Your task to perform on an android device: Open calendar and show me the second week of next month Image 0: 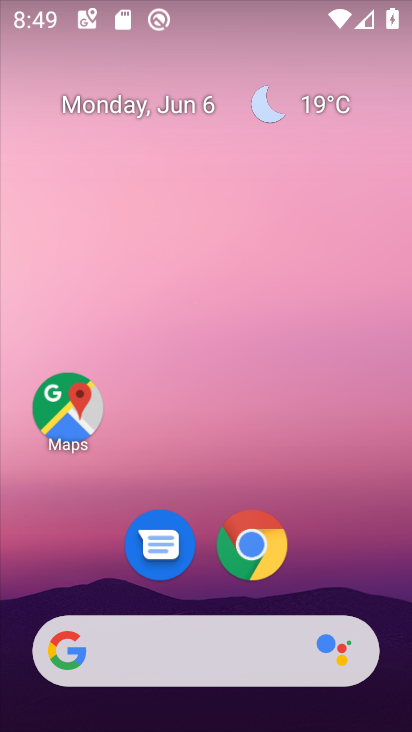
Step 0: drag from (203, 573) to (244, 192)
Your task to perform on an android device: Open calendar and show me the second week of next month Image 1: 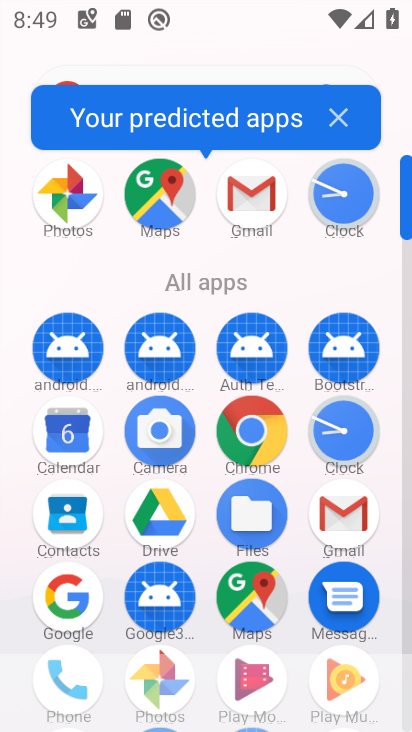
Step 1: click (62, 442)
Your task to perform on an android device: Open calendar and show me the second week of next month Image 2: 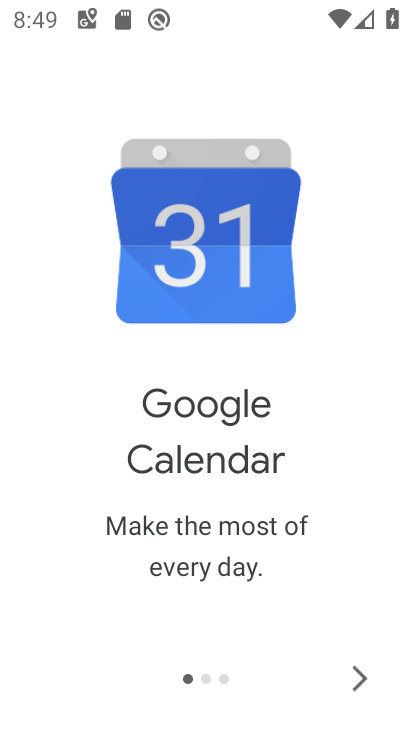
Step 2: click (348, 698)
Your task to perform on an android device: Open calendar and show me the second week of next month Image 3: 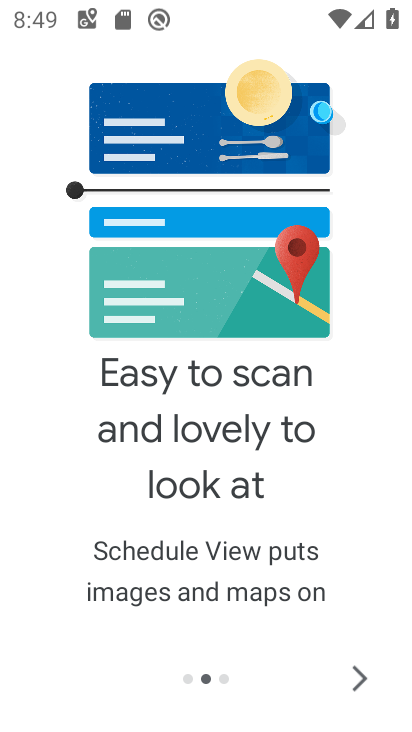
Step 3: click (355, 672)
Your task to perform on an android device: Open calendar and show me the second week of next month Image 4: 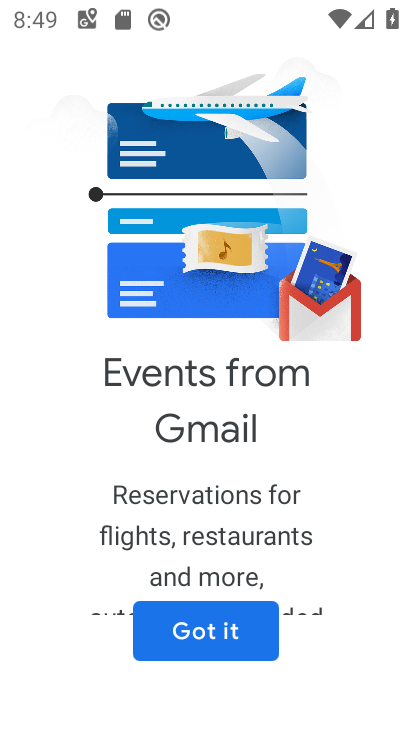
Step 4: click (173, 627)
Your task to perform on an android device: Open calendar and show me the second week of next month Image 5: 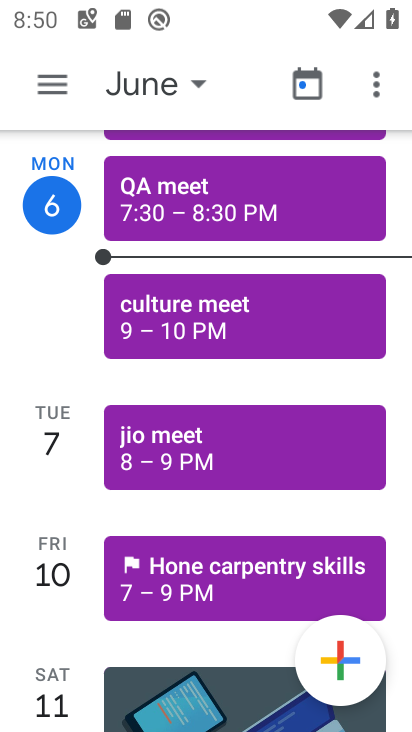
Step 5: click (52, 93)
Your task to perform on an android device: Open calendar and show me the second week of next month Image 6: 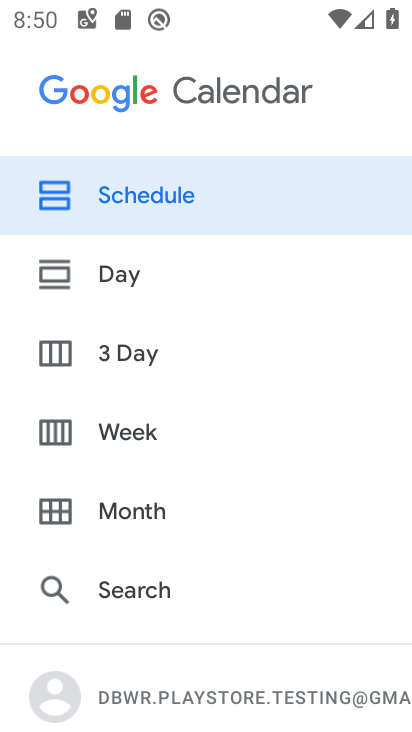
Step 6: click (135, 445)
Your task to perform on an android device: Open calendar and show me the second week of next month Image 7: 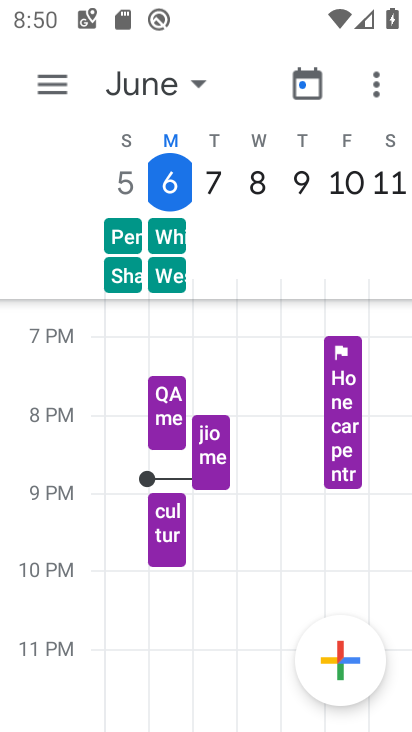
Step 7: click (178, 77)
Your task to perform on an android device: Open calendar and show me the second week of next month Image 8: 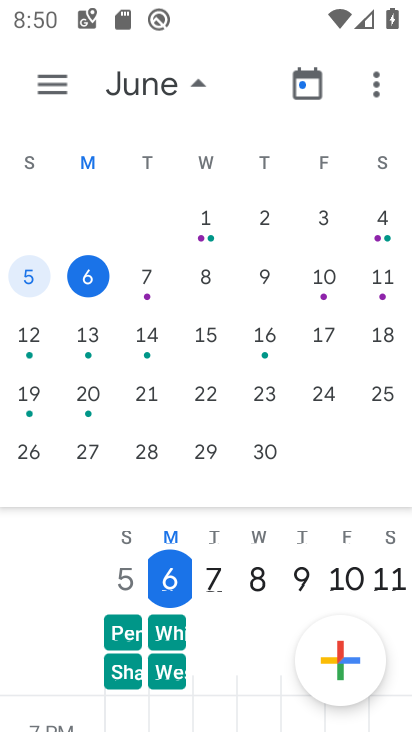
Step 8: drag from (350, 353) to (7, 348)
Your task to perform on an android device: Open calendar and show me the second week of next month Image 9: 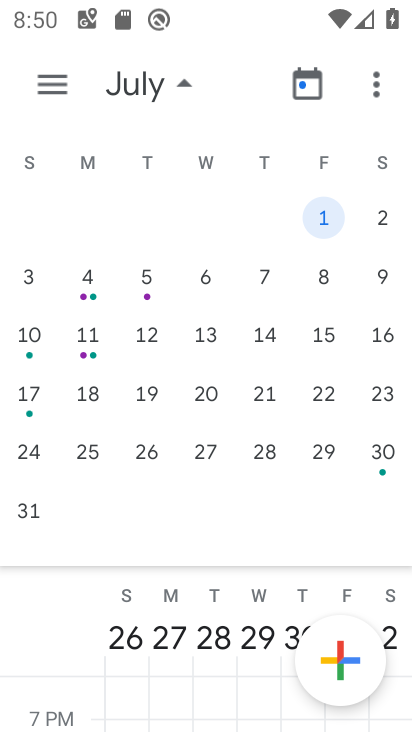
Step 9: click (85, 341)
Your task to perform on an android device: Open calendar and show me the second week of next month Image 10: 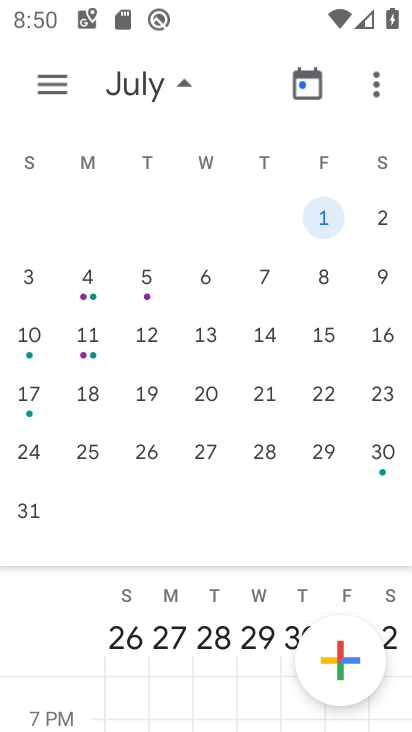
Step 10: click (85, 341)
Your task to perform on an android device: Open calendar and show me the second week of next month Image 11: 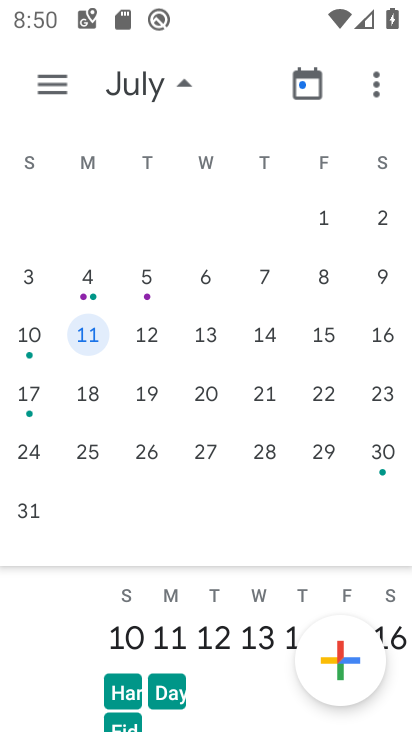
Step 11: click (64, 75)
Your task to perform on an android device: Open calendar and show me the second week of next month Image 12: 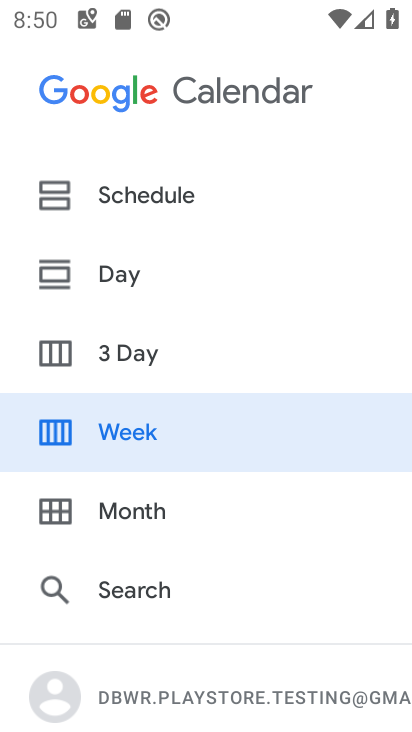
Step 12: click (138, 423)
Your task to perform on an android device: Open calendar and show me the second week of next month Image 13: 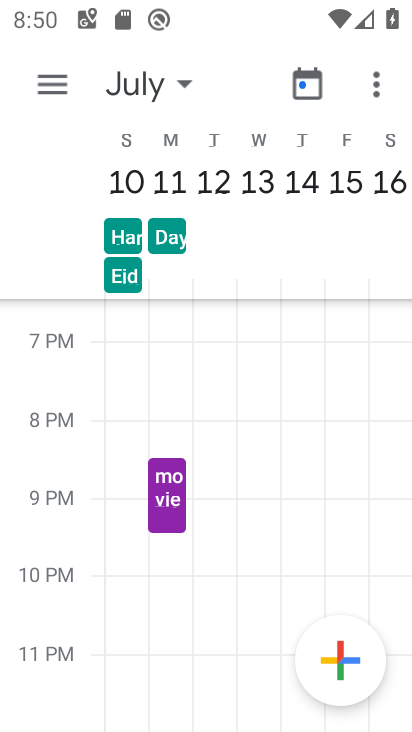
Step 13: task complete